Your task to perform on an android device: Add "logitech g pro" to the cart on ebay.com, then select checkout. Image 0: 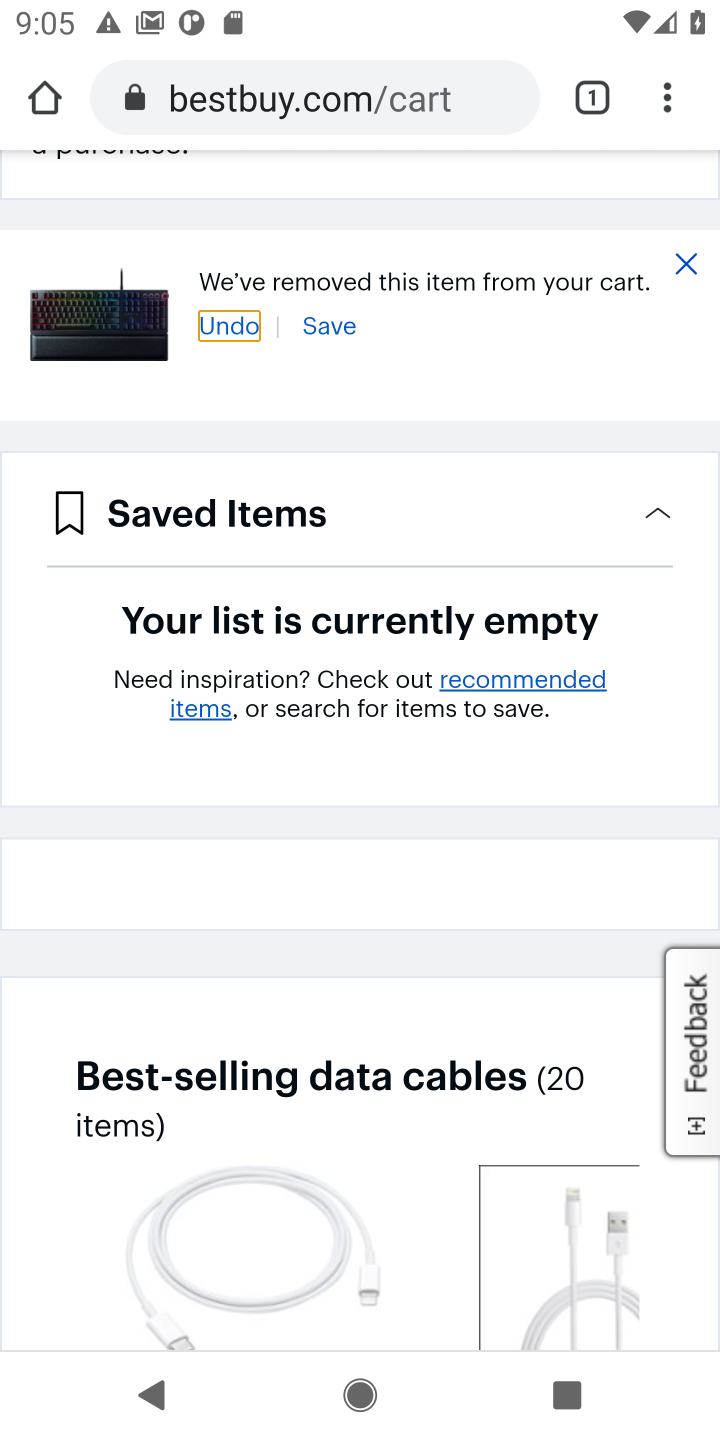
Step 0: click (283, 96)
Your task to perform on an android device: Add "logitech g pro" to the cart on ebay.com, then select checkout. Image 1: 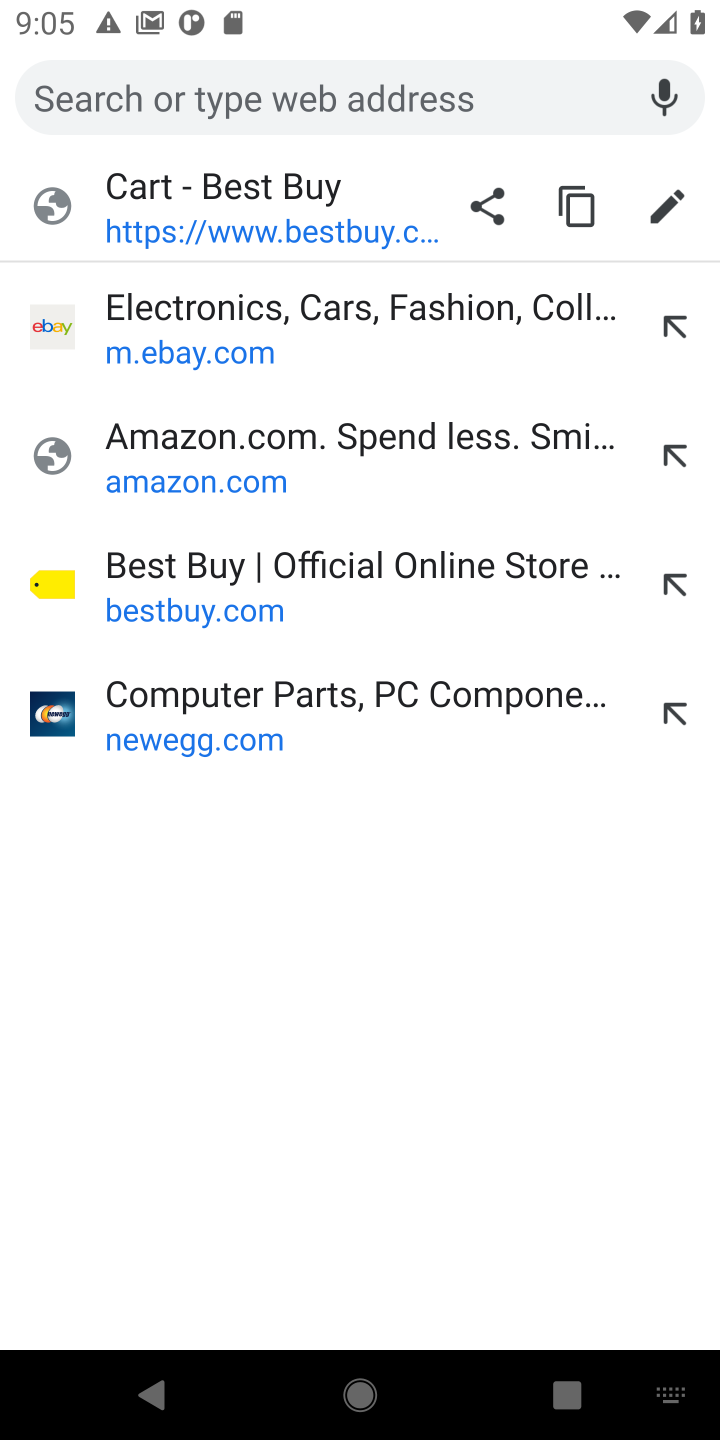
Step 1: click (183, 346)
Your task to perform on an android device: Add "logitech g pro" to the cart on ebay.com, then select checkout. Image 2: 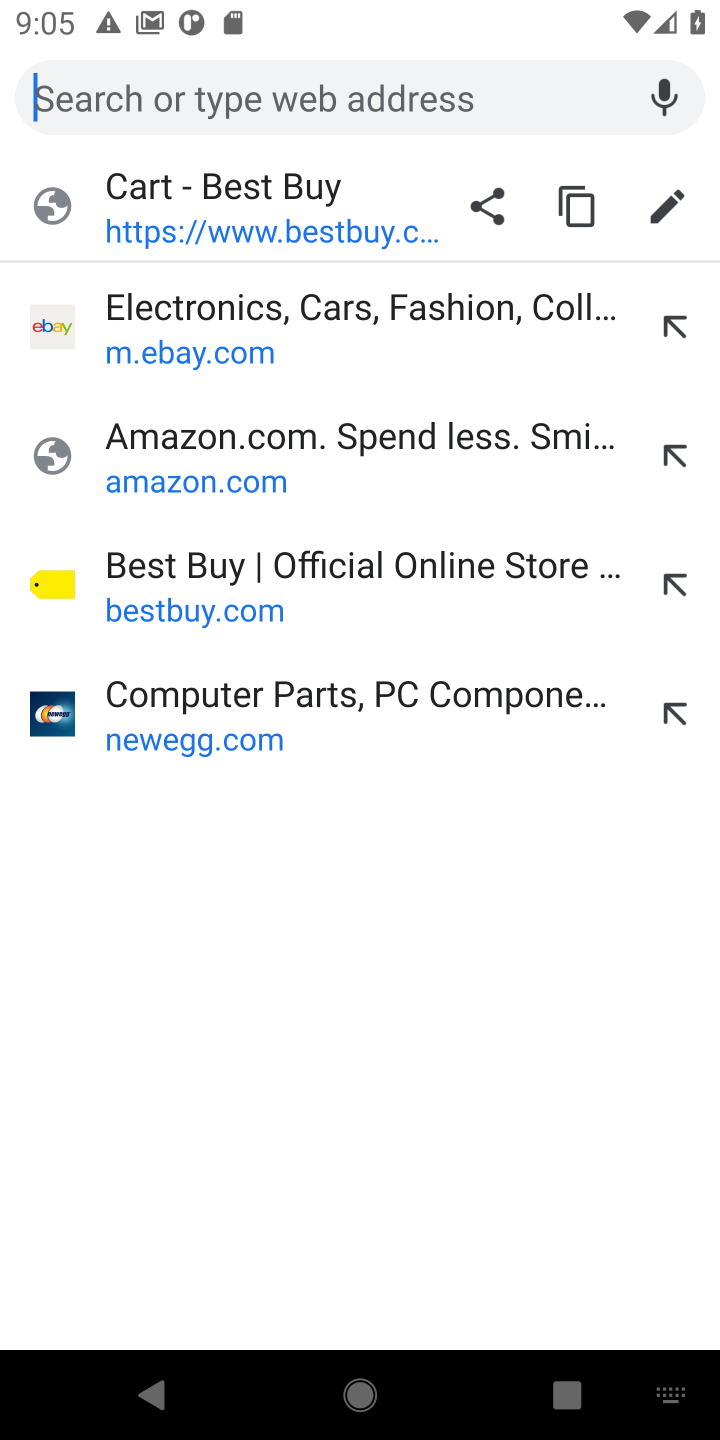
Step 2: click (173, 345)
Your task to perform on an android device: Add "logitech g pro" to the cart on ebay.com, then select checkout. Image 3: 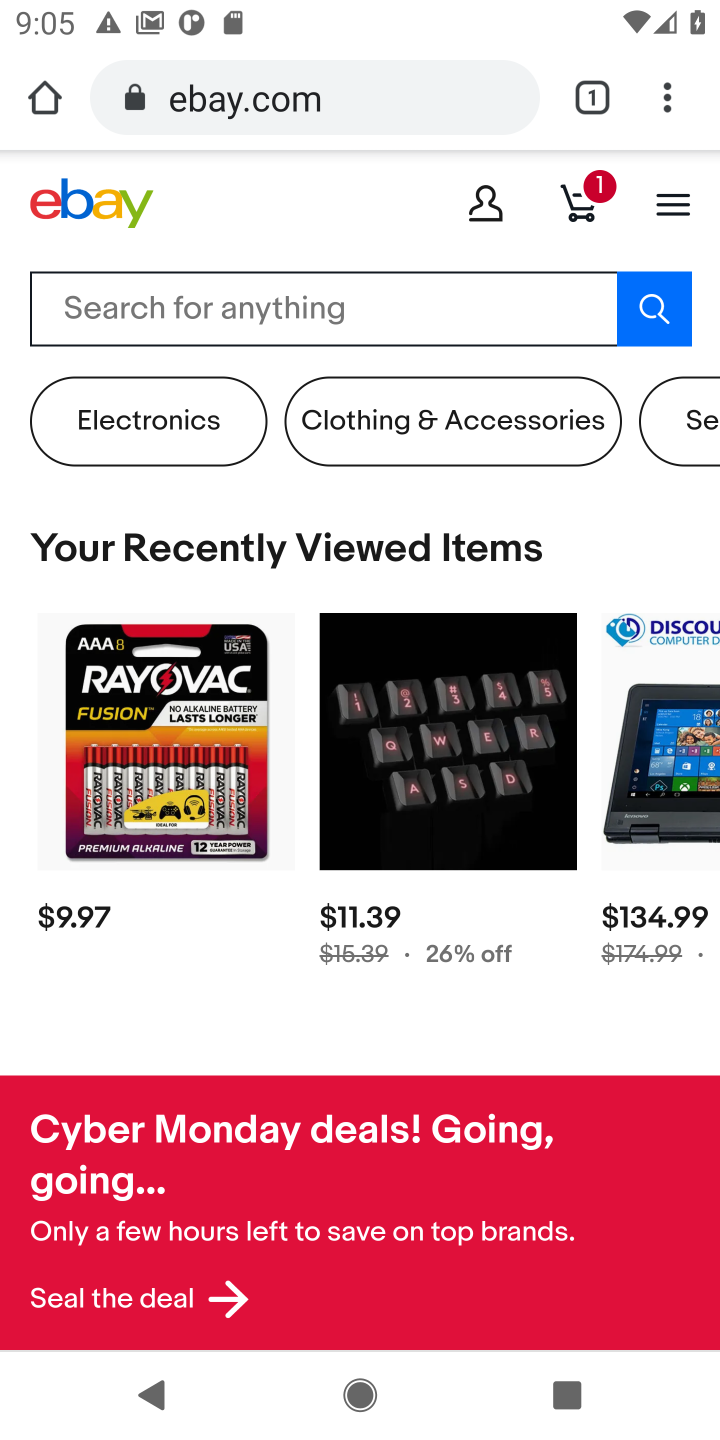
Step 3: click (189, 318)
Your task to perform on an android device: Add "logitech g pro" to the cart on ebay.com, then select checkout. Image 4: 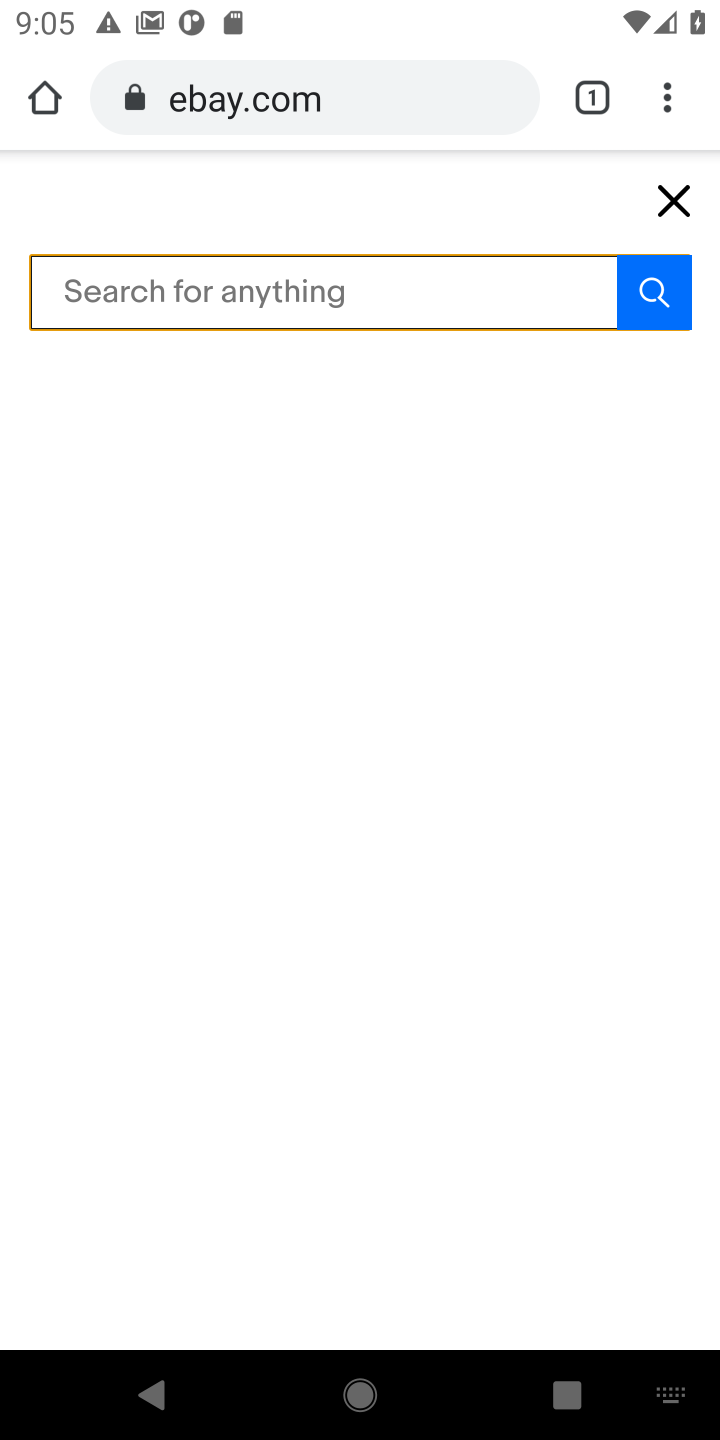
Step 4: type "logitech g pro"
Your task to perform on an android device: Add "logitech g pro" to the cart on ebay.com, then select checkout. Image 5: 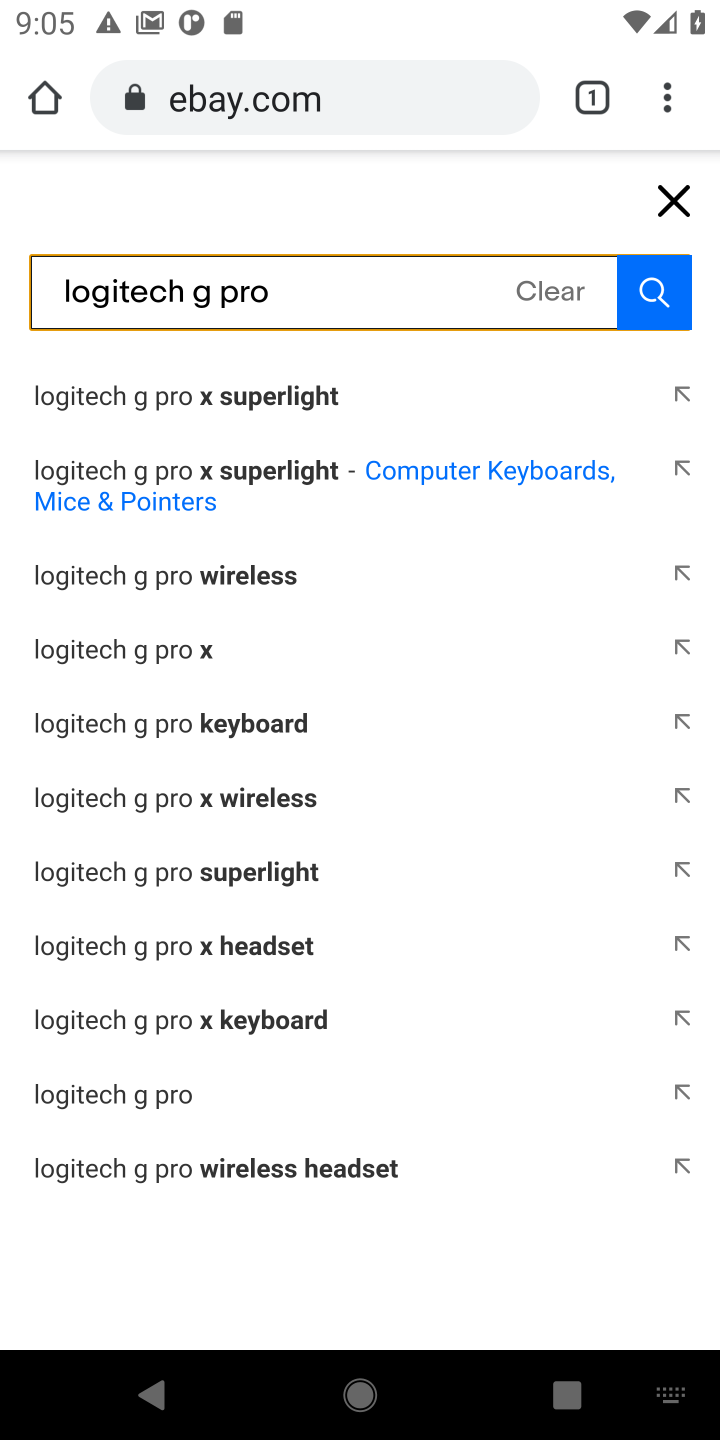
Step 5: click (644, 293)
Your task to perform on an android device: Add "logitech g pro" to the cart on ebay.com, then select checkout. Image 6: 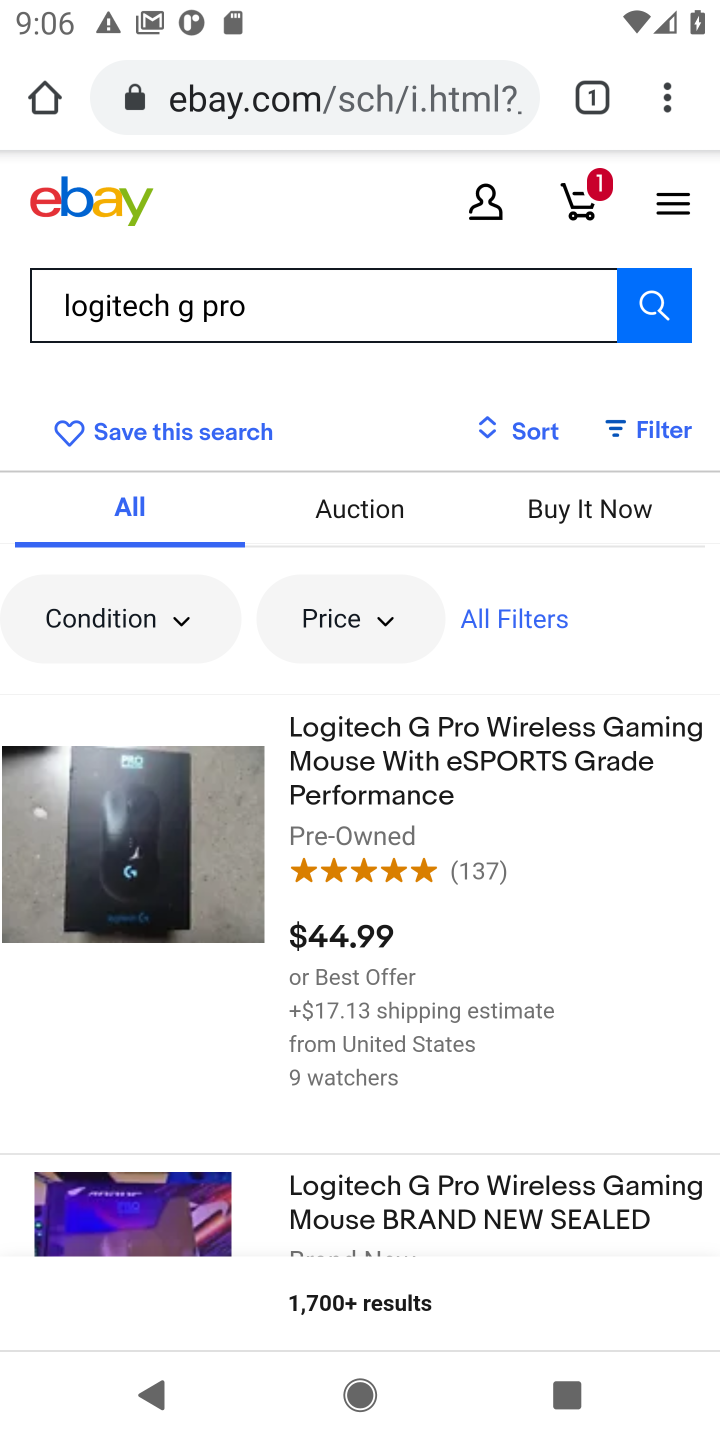
Step 6: click (317, 783)
Your task to perform on an android device: Add "logitech g pro" to the cart on ebay.com, then select checkout. Image 7: 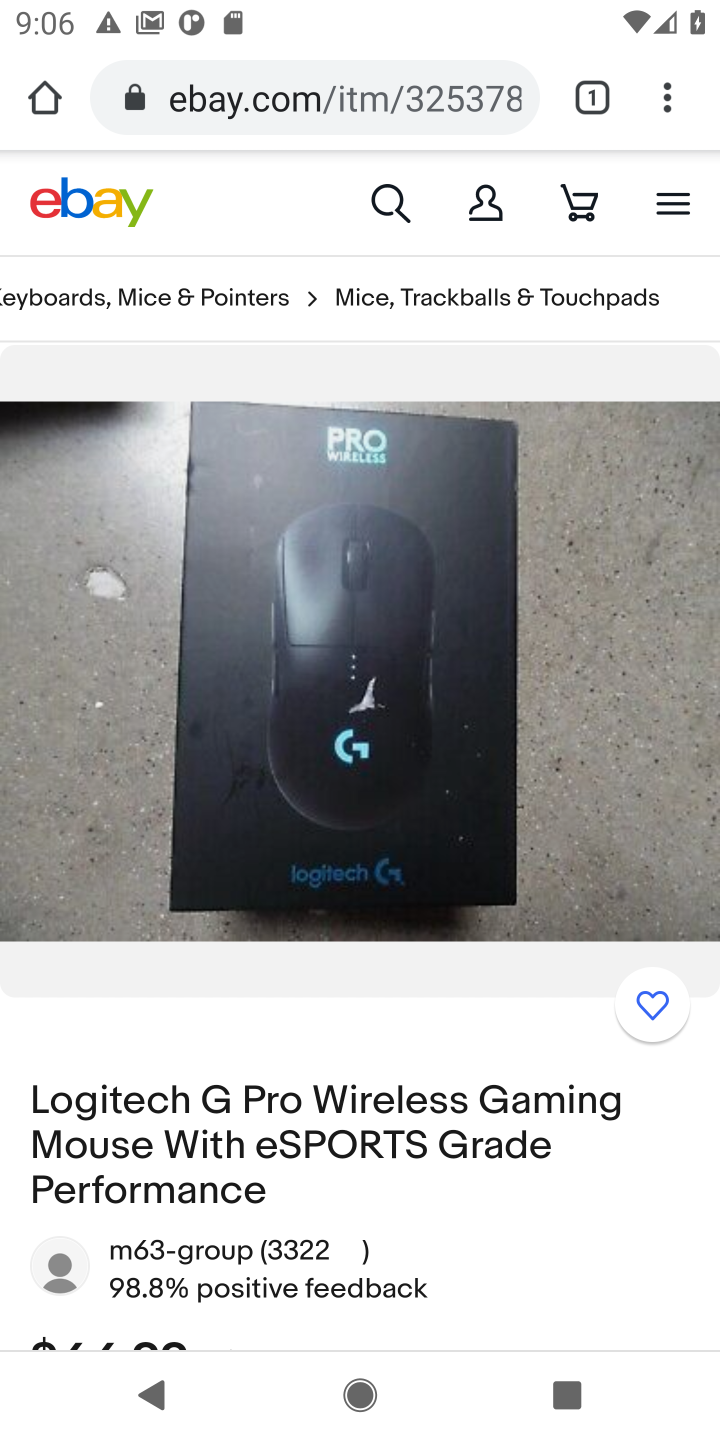
Step 7: drag from (411, 1129) to (394, 618)
Your task to perform on an android device: Add "logitech g pro" to the cart on ebay.com, then select checkout. Image 8: 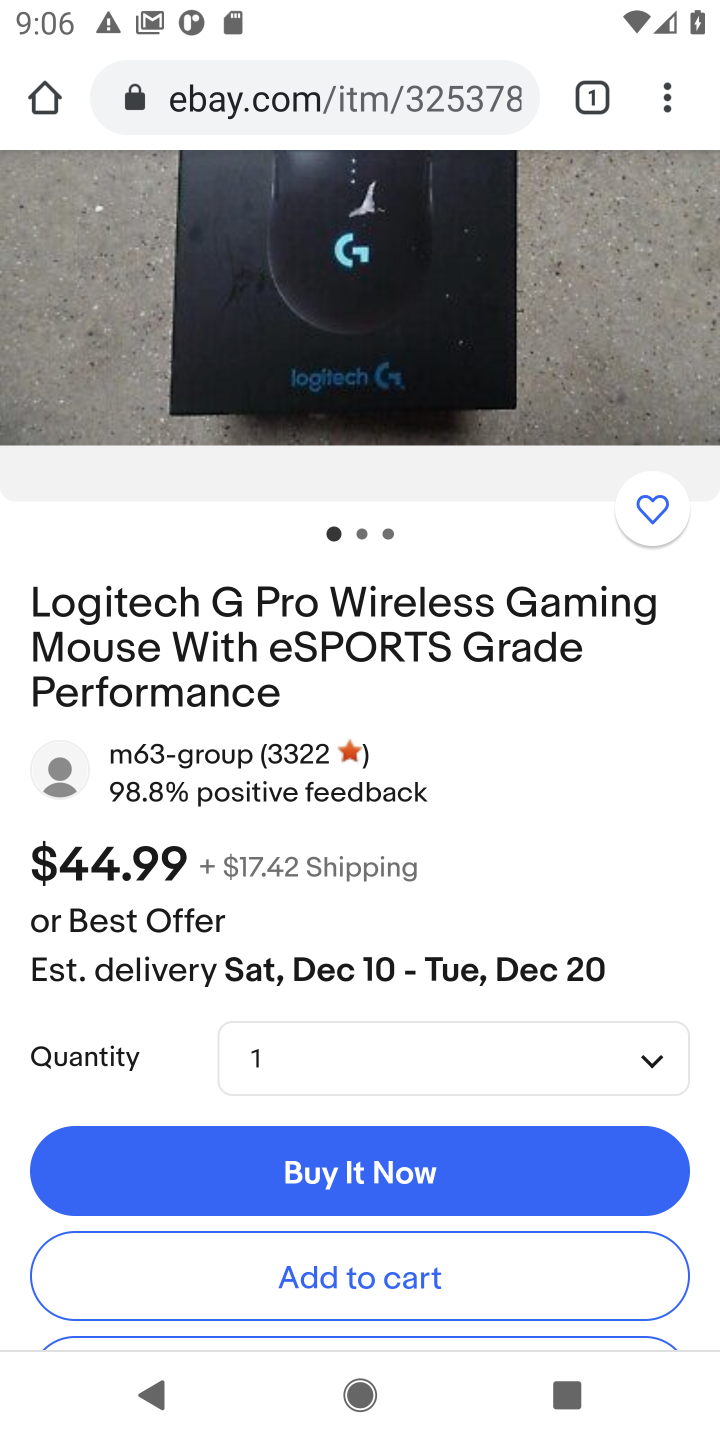
Step 8: drag from (638, 977) to (625, 516)
Your task to perform on an android device: Add "logitech g pro" to the cart on ebay.com, then select checkout. Image 9: 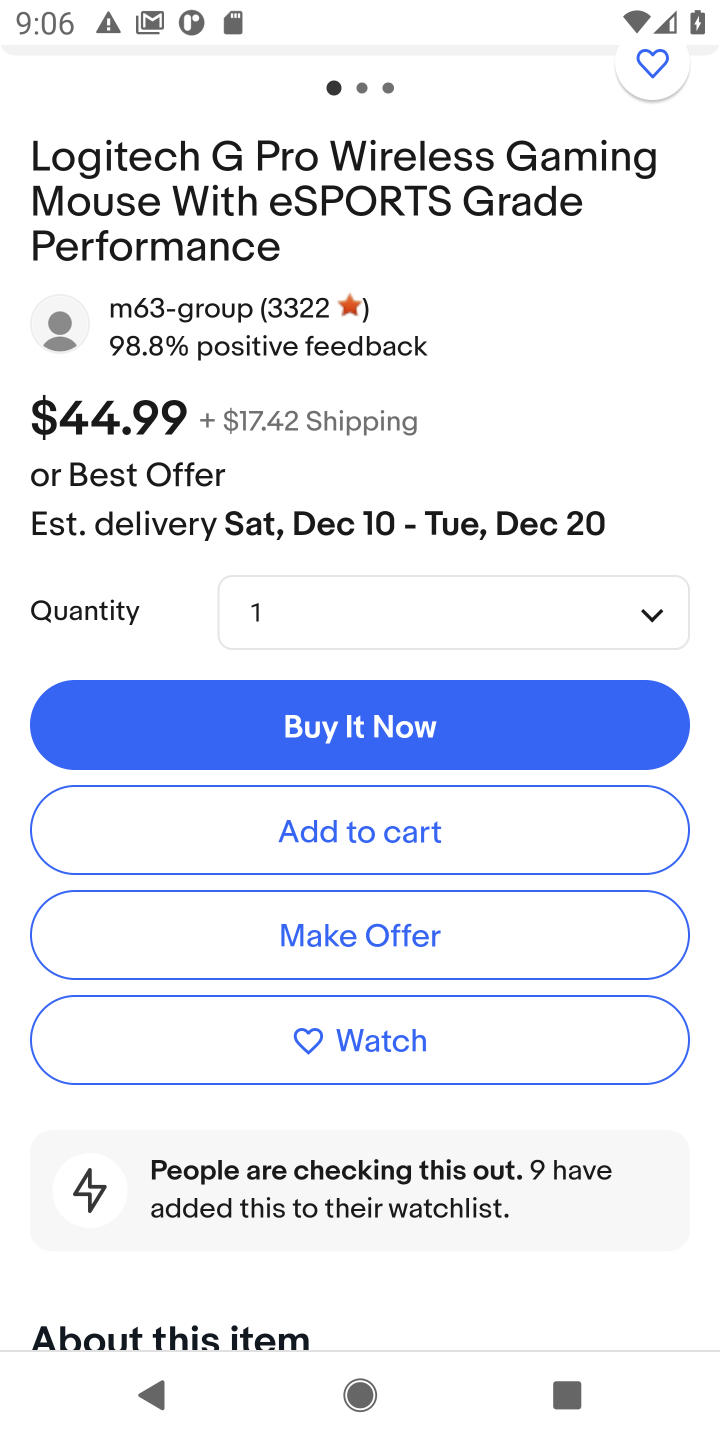
Step 9: click (363, 834)
Your task to perform on an android device: Add "logitech g pro" to the cart on ebay.com, then select checkout. Image 10: 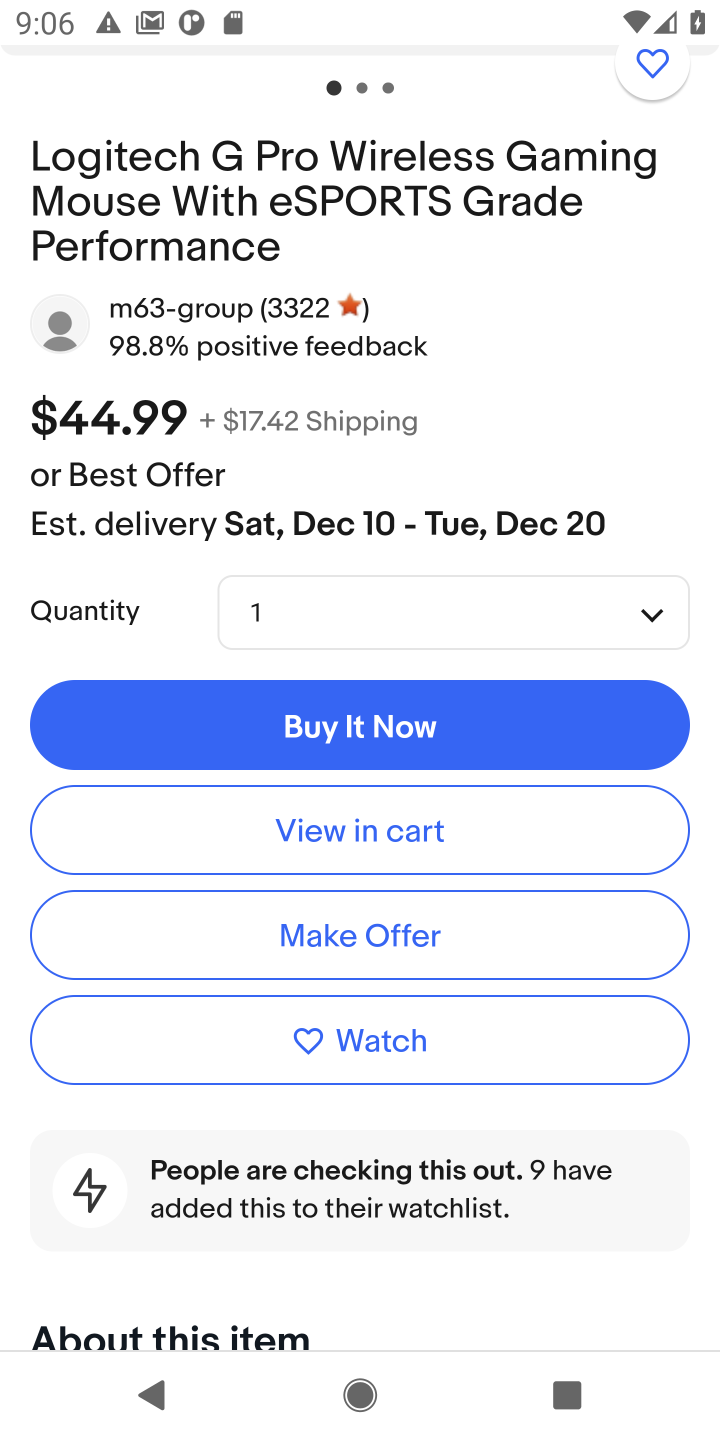
Step 10: click (363, 834)
Your task to perform on an android device: Add "logitech g pro" to the cart on ebay.com, then select checkout. Image 11: 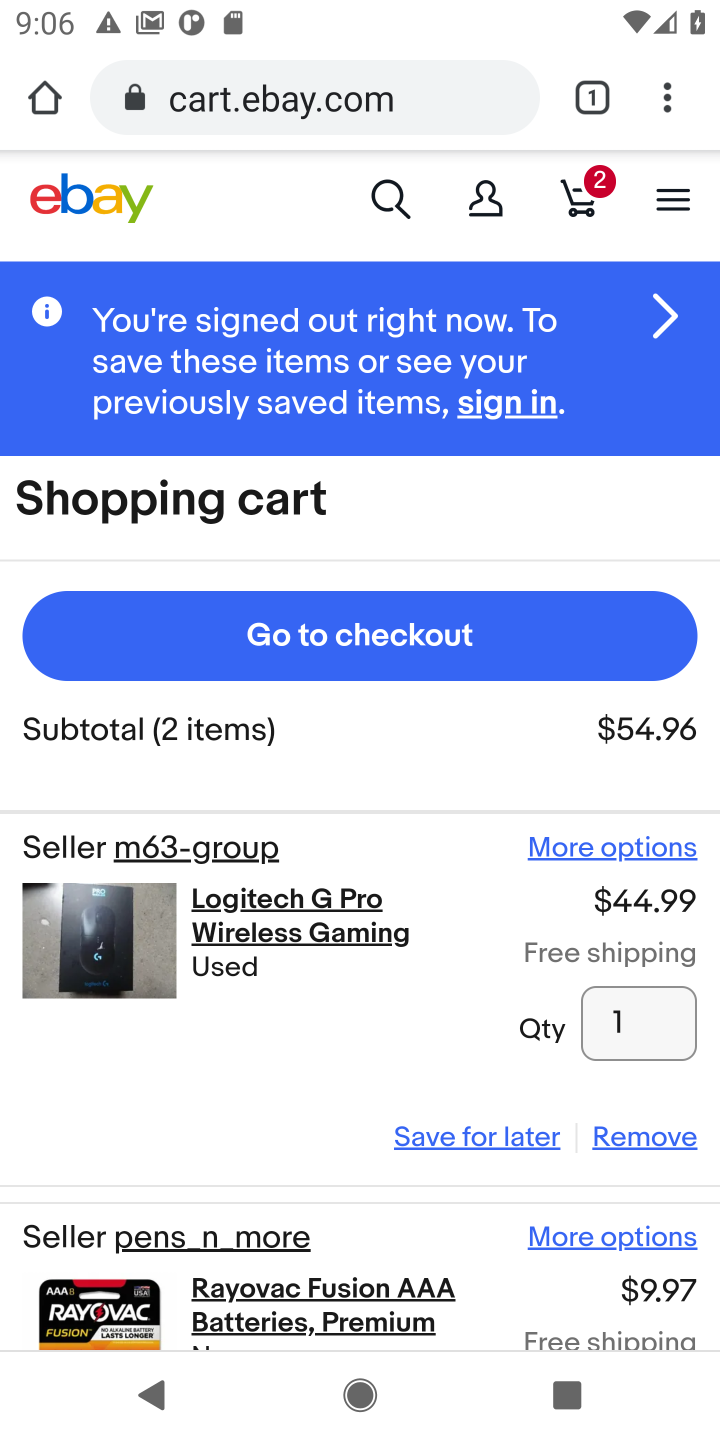
Step 11: click (335, 630)
Your task to perform on an android device: Add "logitech g pro" to the cart on ebay.com, then select checkout. Image 12: 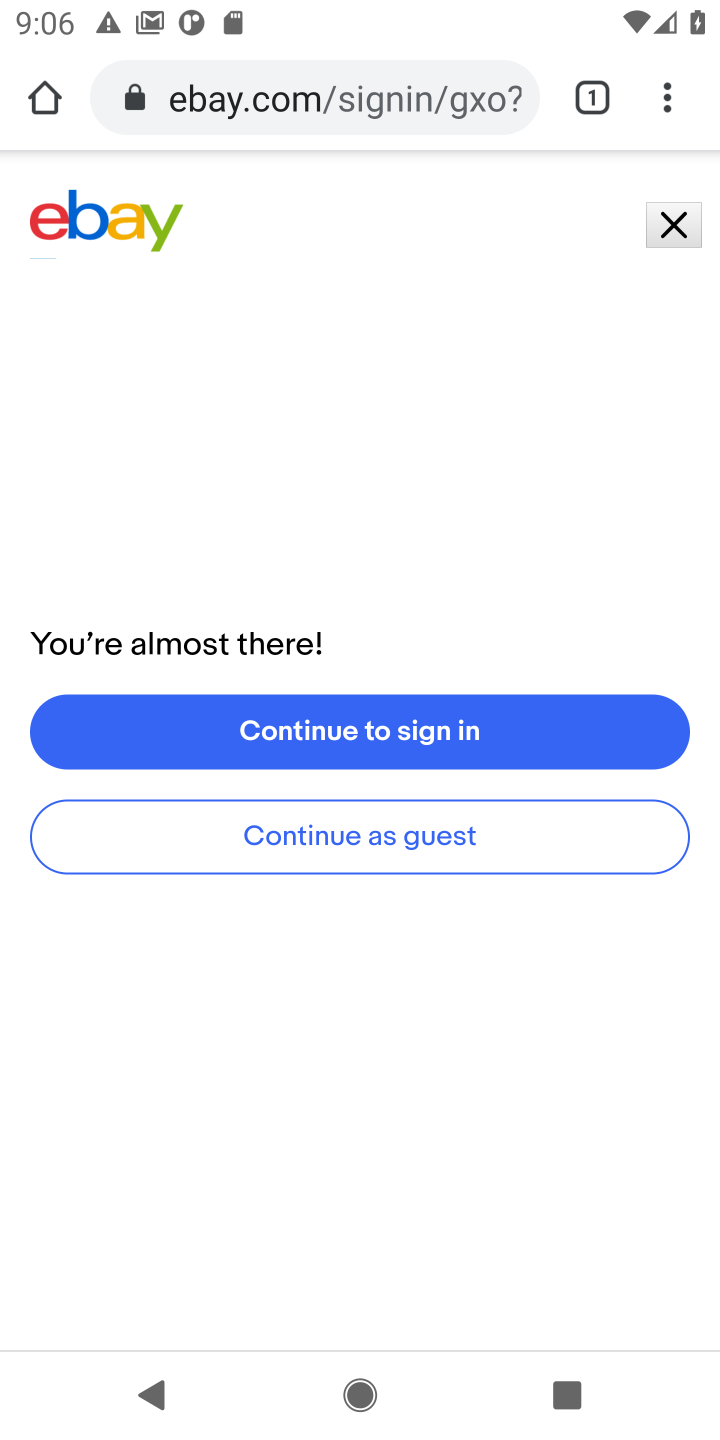
Step 12: task complete